Your task to perform on an android device: show emergency info Image 0: 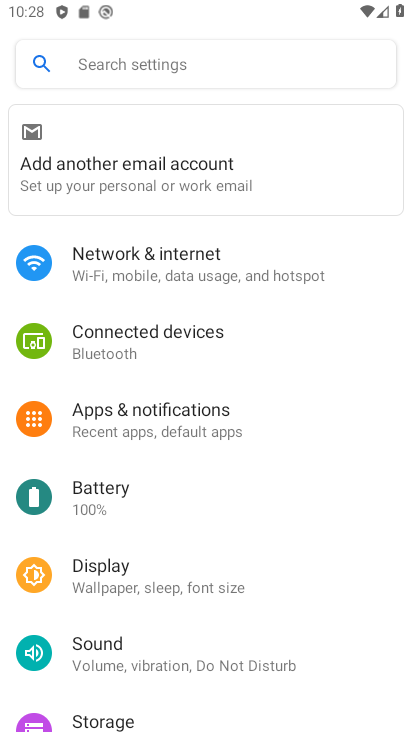
Step 0: drag from (284, 615) to (204, 181)
Your task to perform on an android device: show emergency info Image 1: 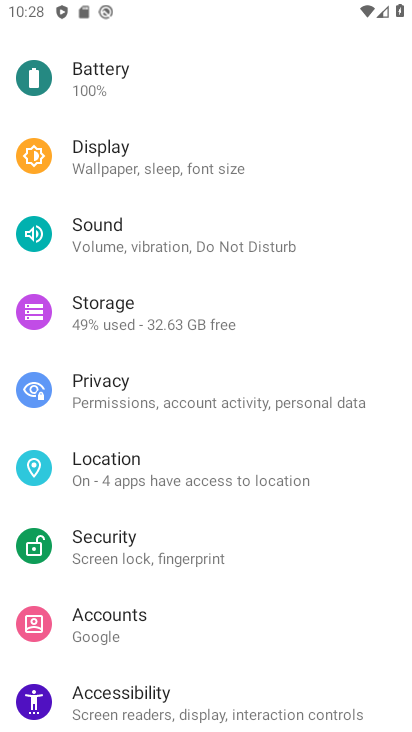
Step 1: drag from (192, 662) to (171, 110)
Your task to perform on an android device: show emergency info Image 2: 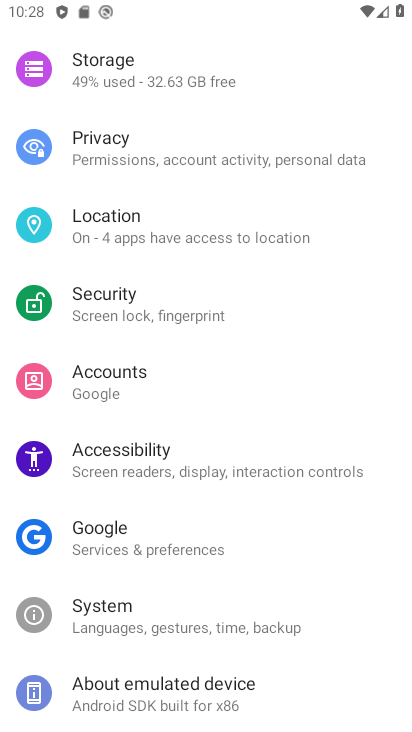
Step 2: click (201, 699)
Your task to perform on an android device: show emergency info Image 3: 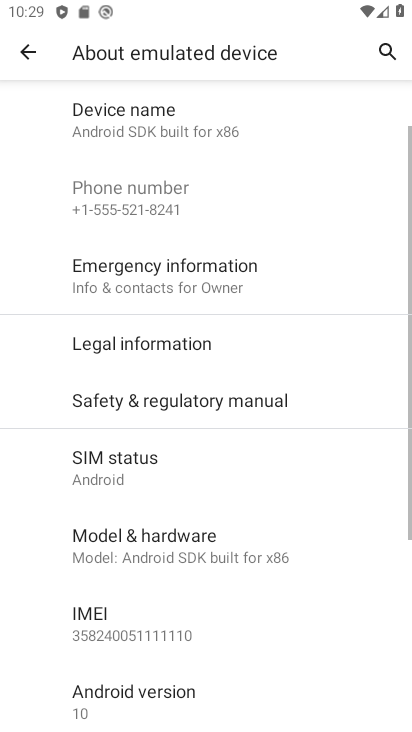
Step 3: click (167, 286)
Your task to perform on an android device: show emergency info Image 4: 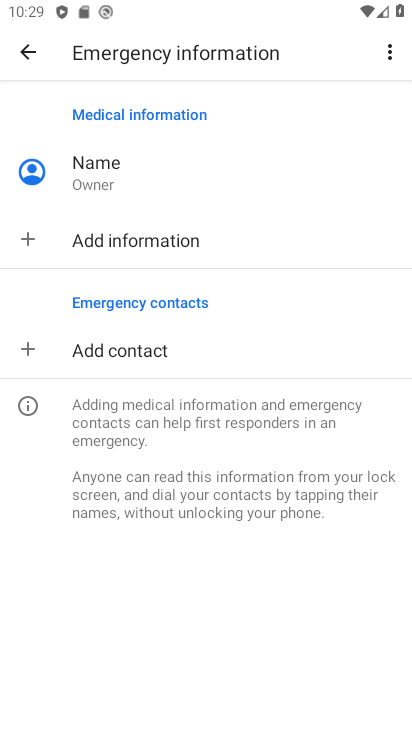
Step 4: task complete